Your task to perform on an android device: open a bookmark in the chrome app Image 0: 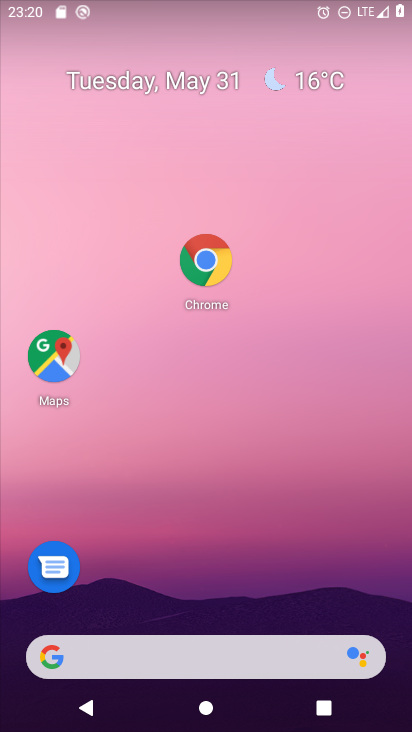
Step 0: drag from (214, 623) to (177, 291)
Your task to perform on an android device: open a bookmark in the chrome app Image 1: 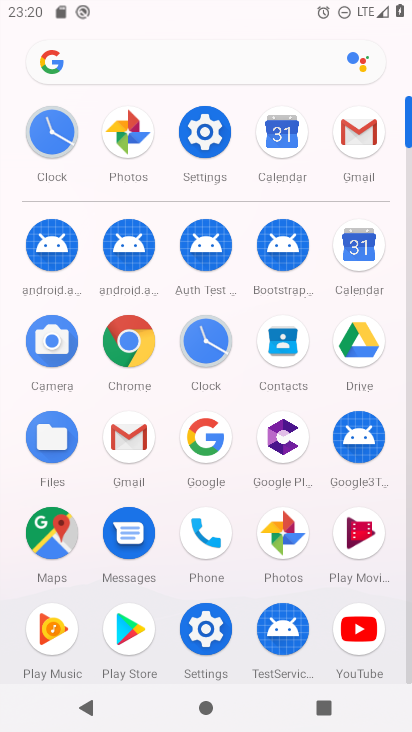
Step 1: click (145, 345)
Your task to perform on an android device: open a bookmark in the chrome app Image 2: 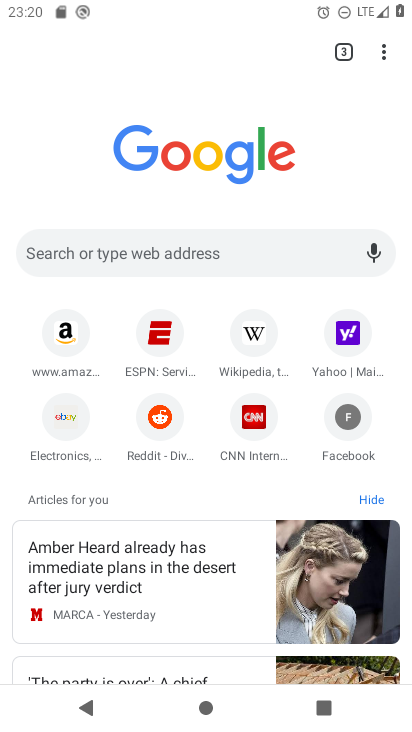
Step 2: click (386, 56)
Your task to perform on an android device: open a bookmark in the chrome app Image 3: 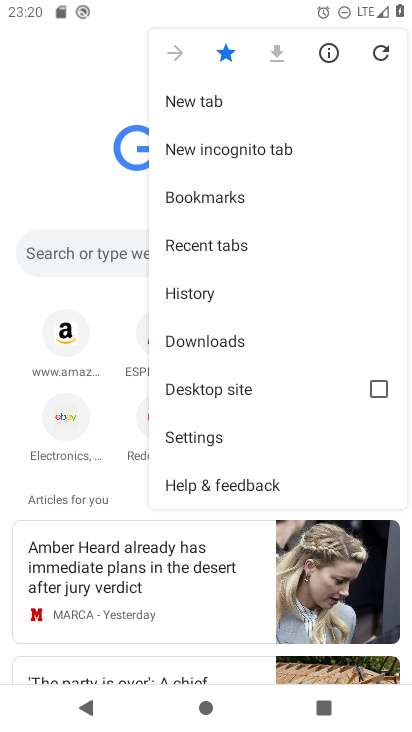
Step 3: click (223, 200)
Your task to perform on an android device: open a bookmark in the chrome app Image 4: 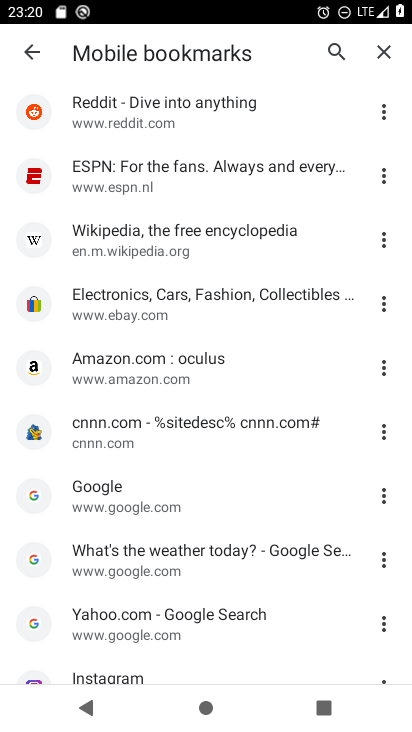
Step 4: task complete